Your task to perform on an android device: uninstall "Pandora - Music & Podcasts" Image 0: 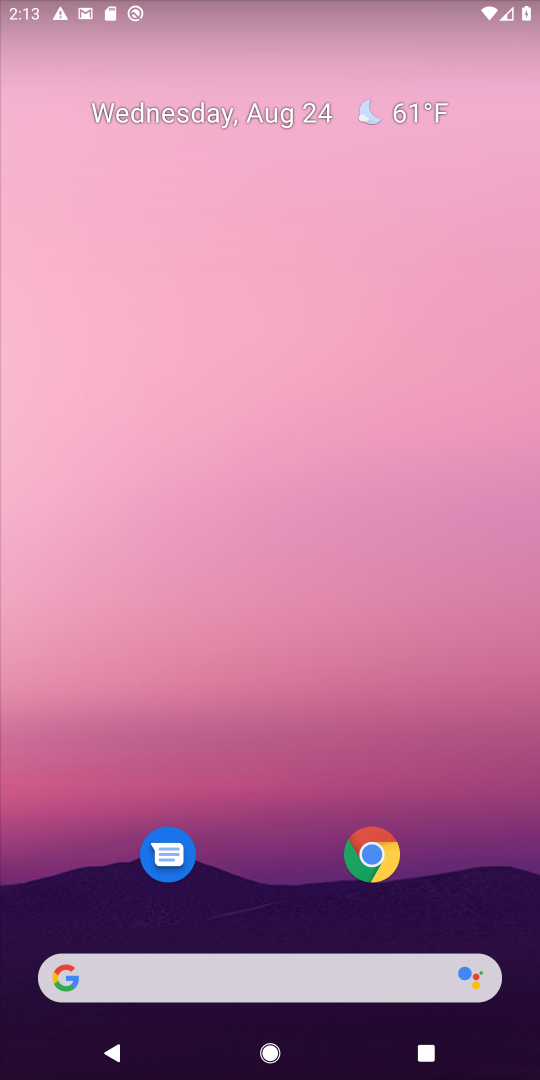
Step 0: press home button
Your task to perform on an android device: uninstall "Pandora - Music & Podcasts" Image 1: 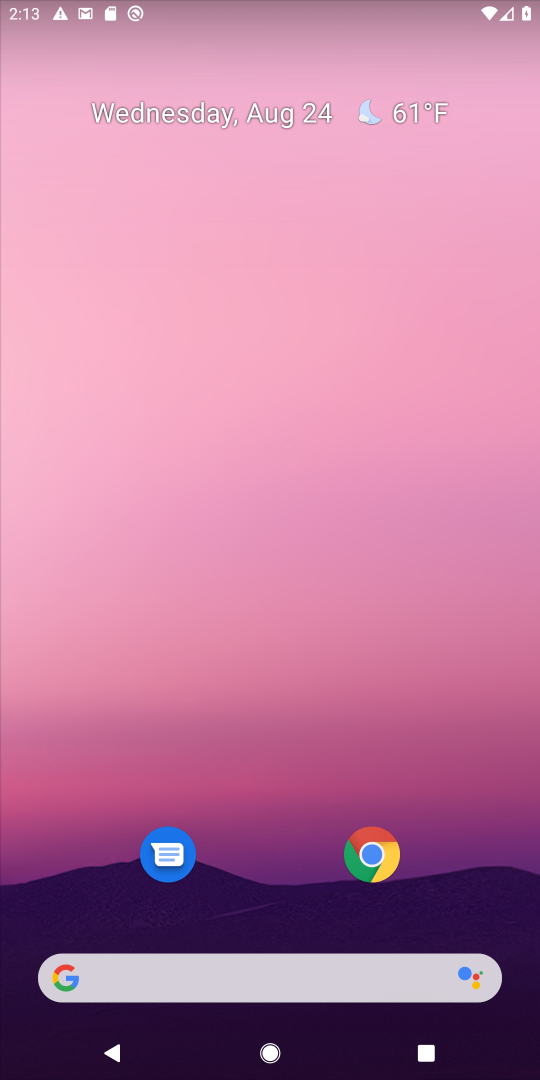
Step 1: drag from (468, 863) to (463, 196)
Your task to perform on an android device: uninstall "Pandora - Music & Podcasts" Image 2: 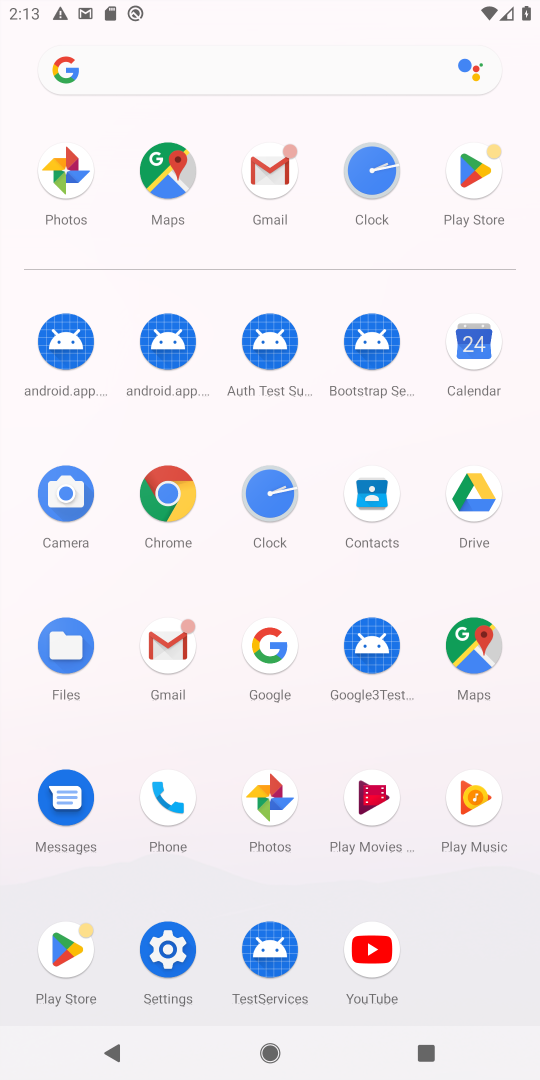
Step 2: click (475, 180)
Your task to perform on an android device: uninstall "Pandora - Music & Podcasts" Image 3: 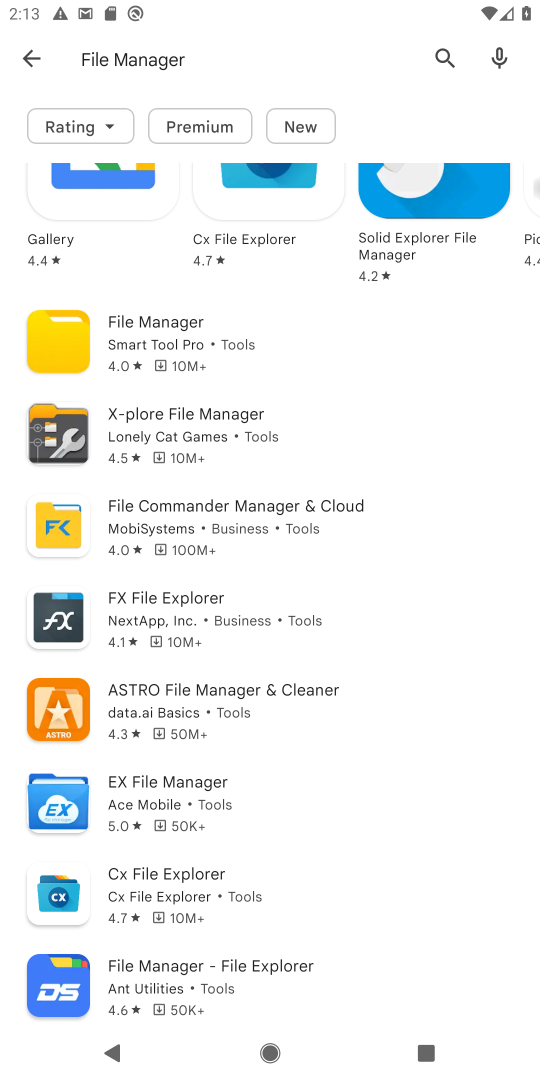
Step 3: press back button
Your task to perform on an android device: uninstall "Pandora - Music & Podcasts" Image 4: 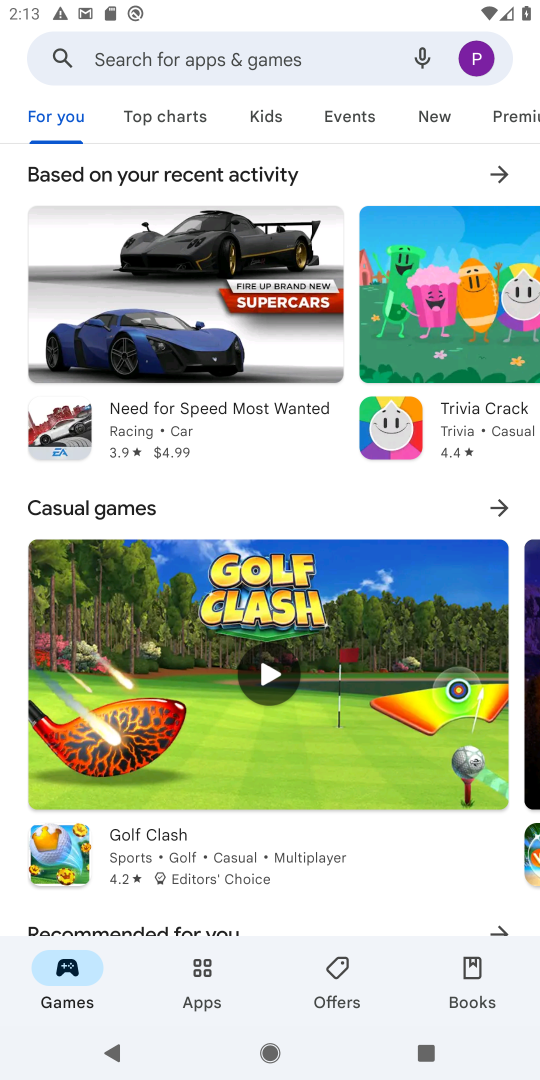
Step 4: click (231, 54)
Your task to perform on an android device: uninstall "Pandora - Music & Podcasts" Image 5: 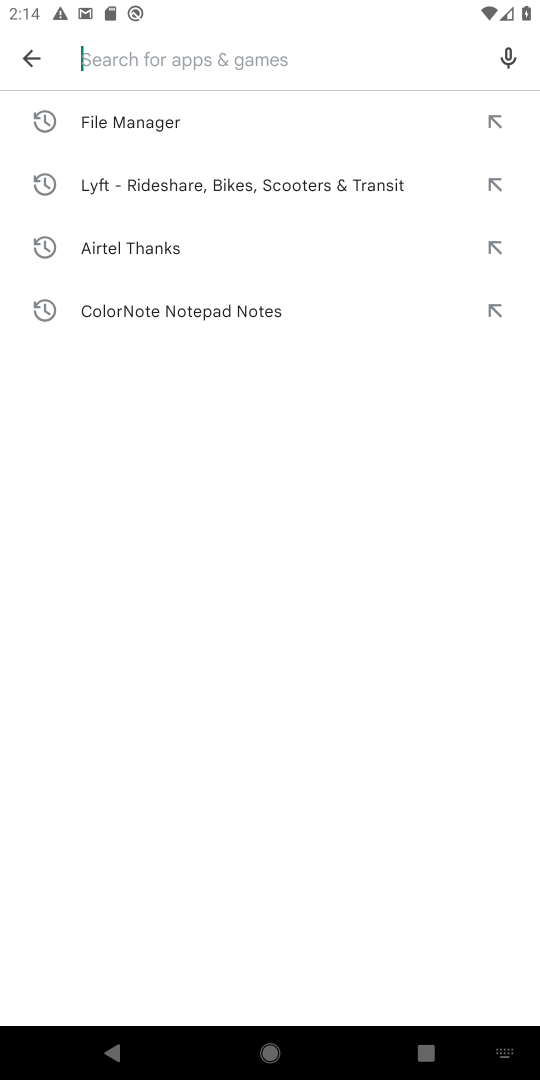
Step 5: press enter
Your task to perform on an android device: uninstall "Pandora - Music & Podcasts" Image 6: 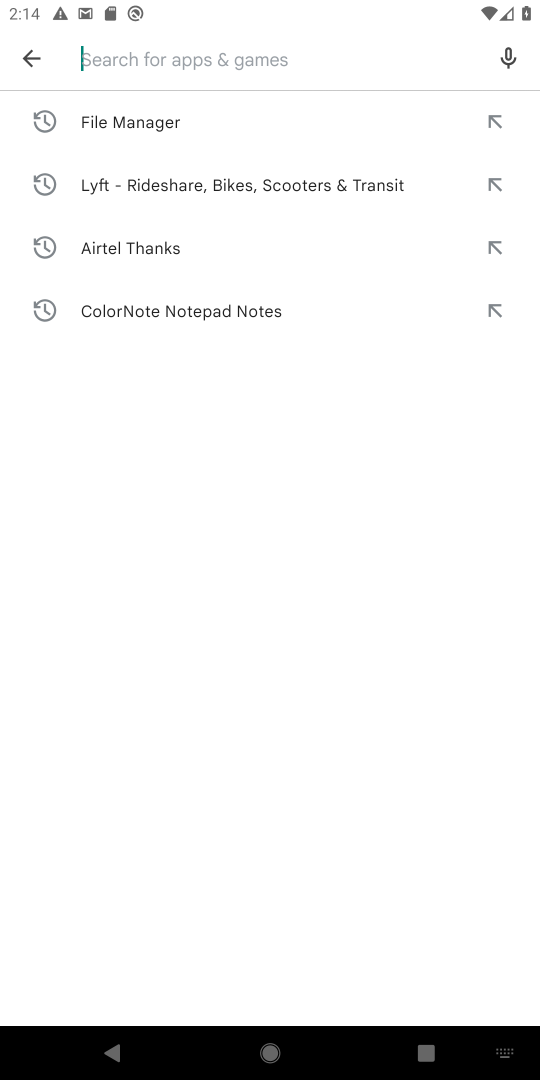
Step 6: type "Pandora - Music & Podcasts"
Your task to perform on an android device: uninstall "Pandora - Music & Podcasts" Image 7: 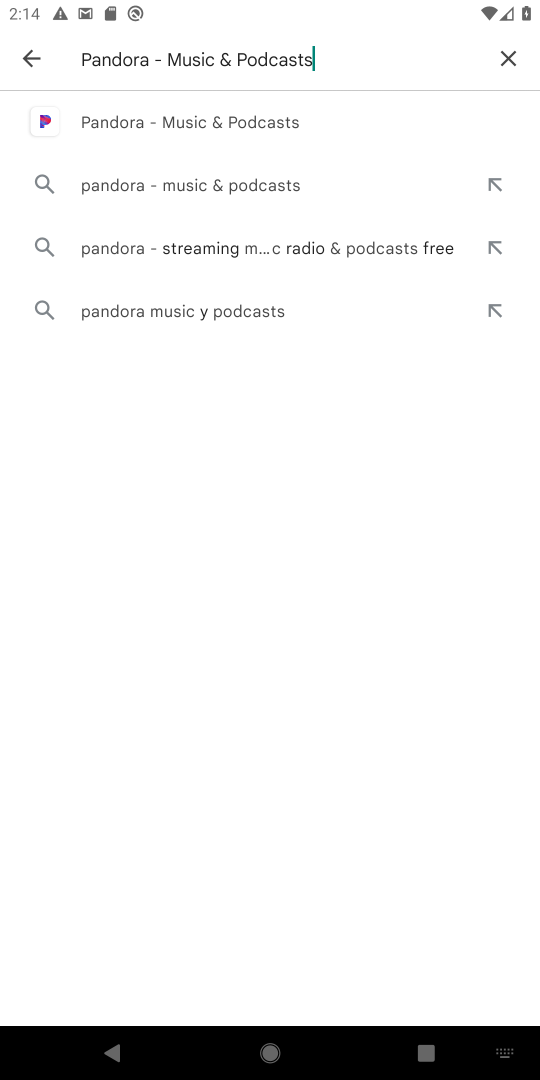
Step 7: click (269, 129)
Your task to perform on an android device: uninstall "Pandora - Music & Podcasts" Image 8: 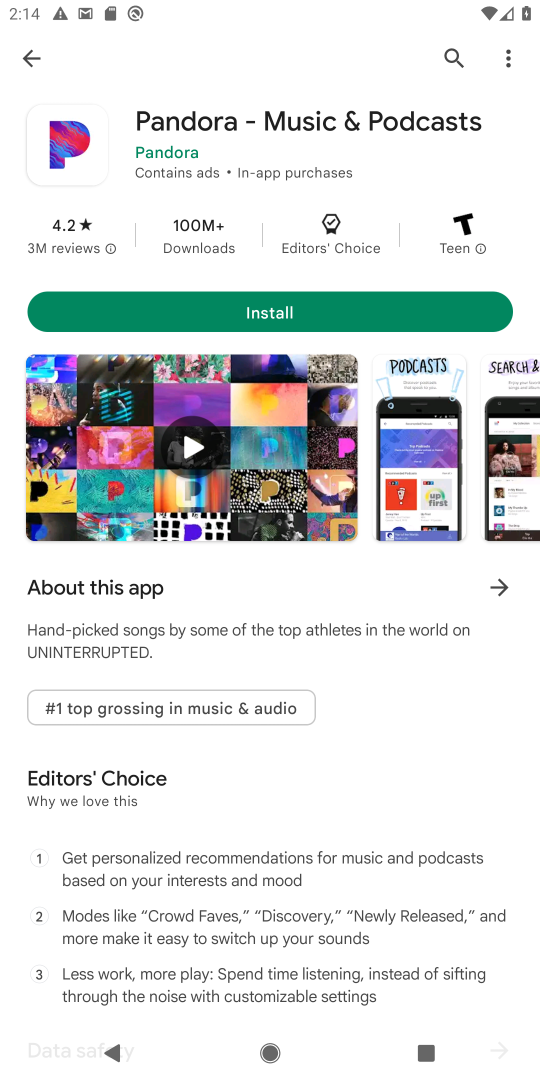
Step 8: task complete